Your task to perform on an android device: visit the assistant section in the google photos Image 0: 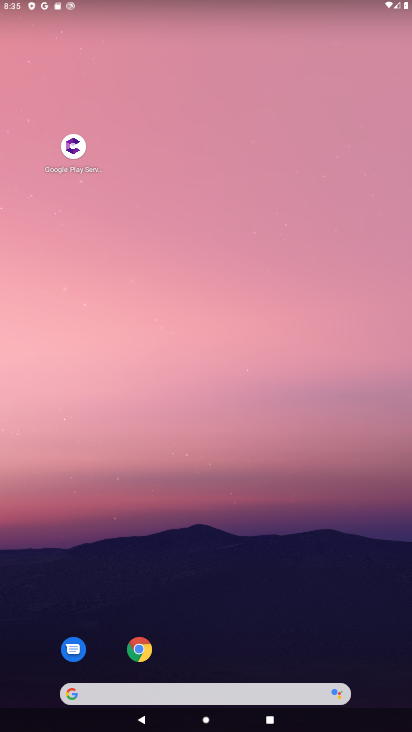
Step 0: drag from (264, 654) to (218, 103)
Your task to perform on an android device: visit the assistant section in the google photos Image 1: 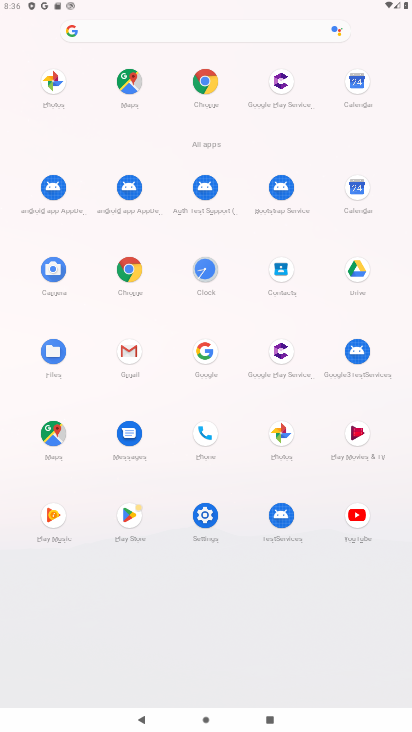
Step 1: click (283, 434)
Your task to perform on an android device: visit the assistant section in the google photos Image 2: 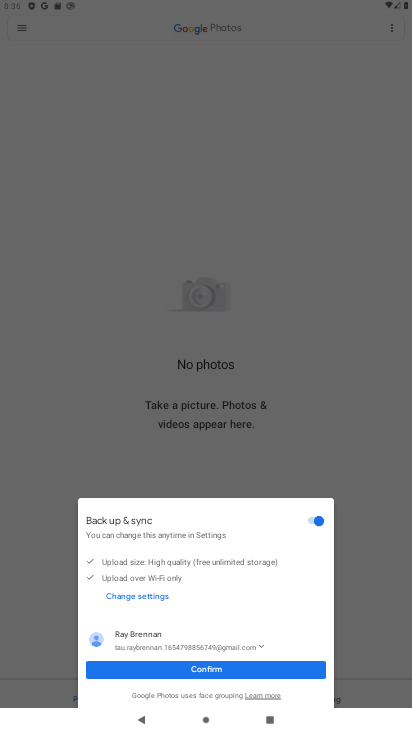
Step 2: click (275, 669)
Your task to perform on an android device: visit the assistant section in the google photos Image 3: 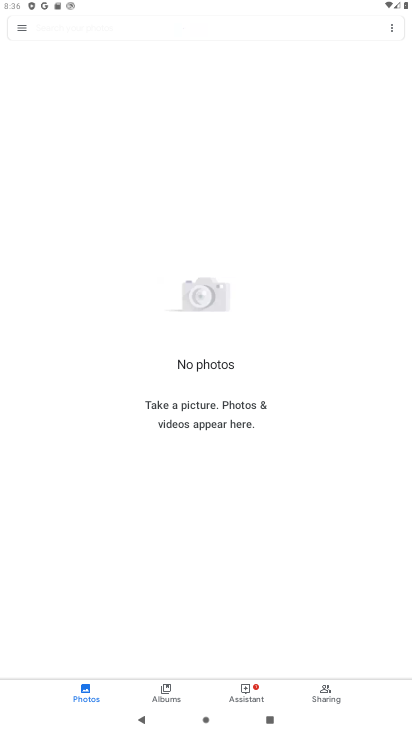
Step 3: click (249, 698)
Your task to perform on an android device: visit the assistant section in the google photos Image 4: 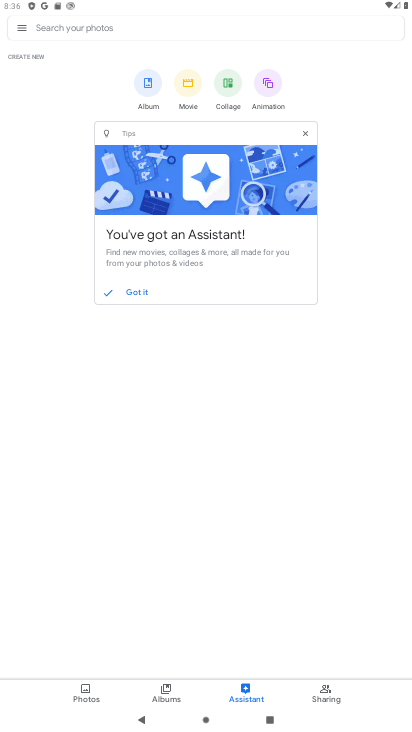
Step 4: task complete